Your task to perform on an android device: Open calendar and show me the first week of next month Image 0: 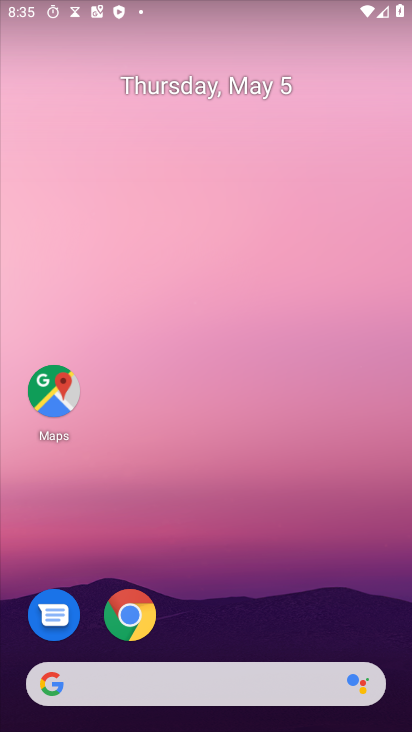
Step 0: drag from (218, 637) to (252, 268)
Your task to perform on an android device: Open calendar and show me the first week of next month Image 1: 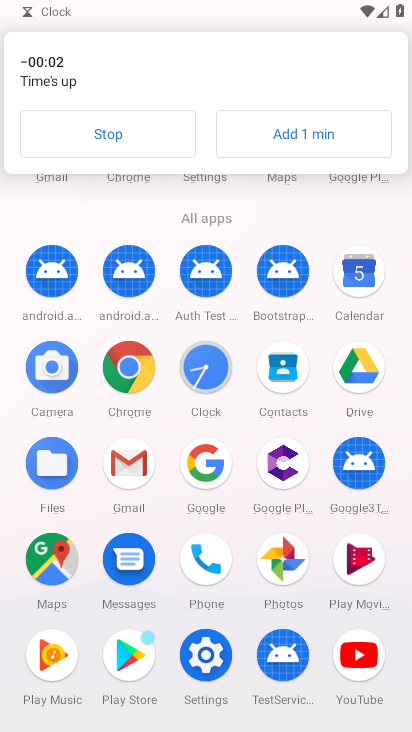
Step 1: click (164, 139)
Your task to perform on an android device: Open calendar and show me the first week of next month Image 2: 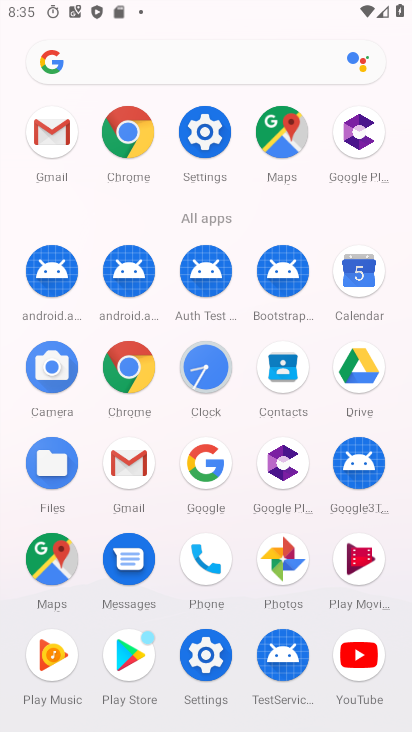
Step 2: click (346, 292)
Your task to perform on an android device: Open calendar and show me the first week of next month Image 3: 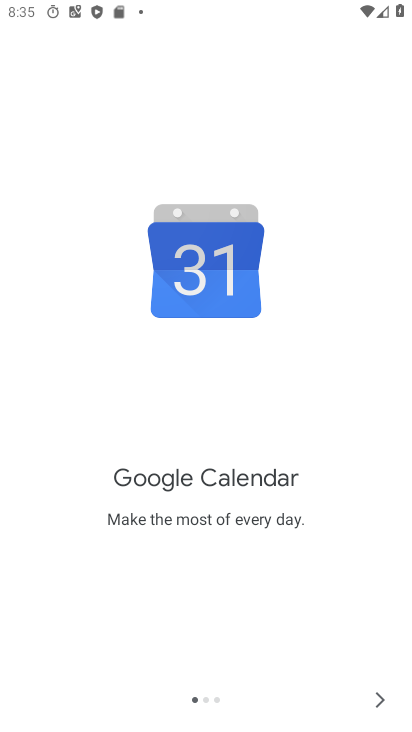
Step 3: click (379, 696)
Your task to perform on an android device: Open calendar and show me the first week of next month Image 4: 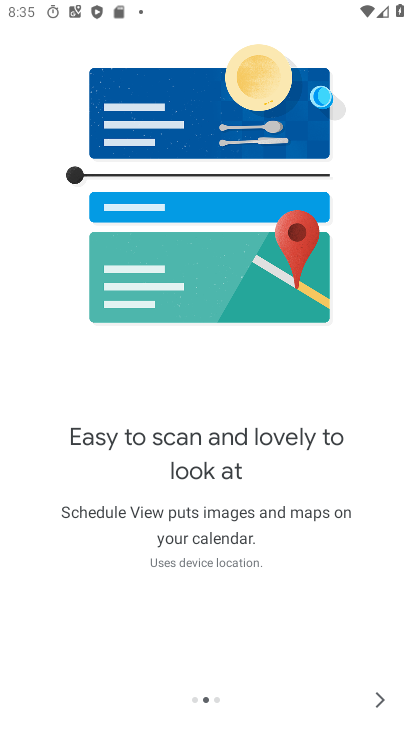
Step 4: click (383, 696)
Your task to perform on an android device: Open calendar and show me the first week of next month Image 5: 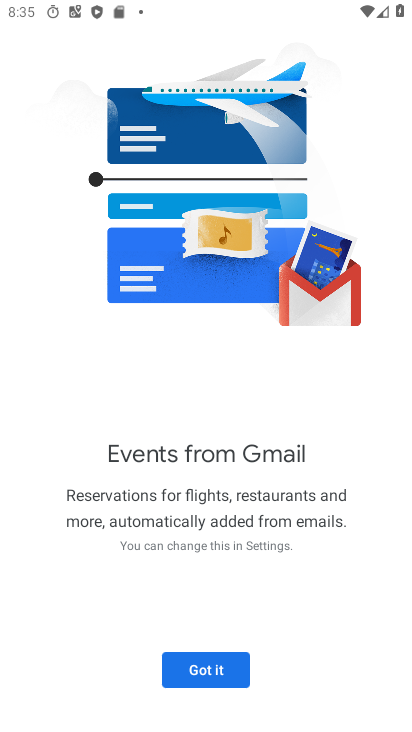
Step 5: click (218, 672)
Your task to perform on an android device: Open calendar and show me the first week of next month Image 6: 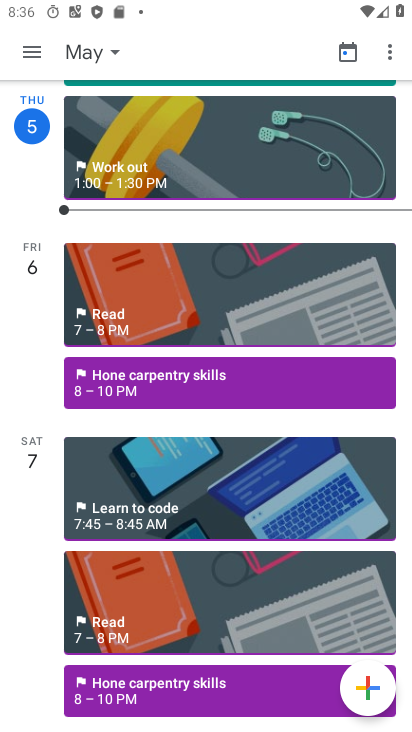
Step 6: click (22, 61)
Your task to perform on an android device: Open calendar and show me the first week of next month Image 7: 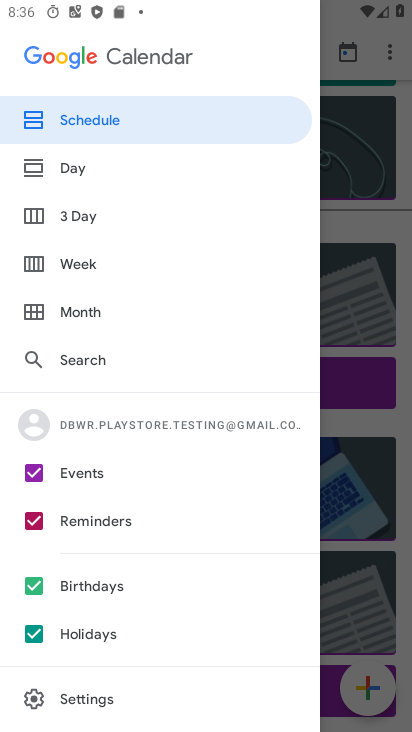
Step 7: click (84, 254)
Your task to perform on an android device: Open calendar and show me the first week of next month Image 8: 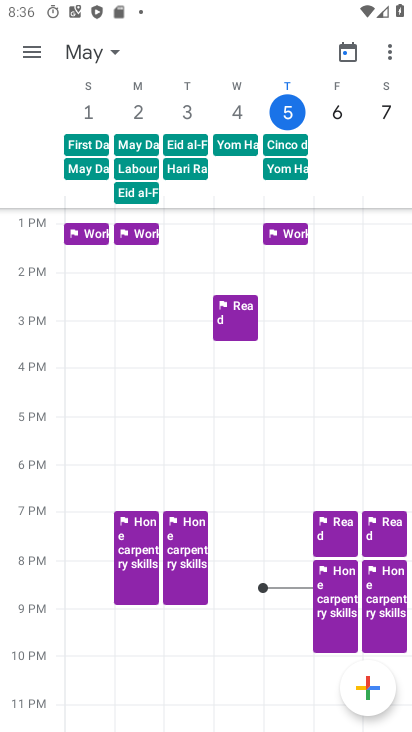
Step 8: click (37, 54)
Your task to perform on an android device: Open calendar and show me the first week of next month Image 9: 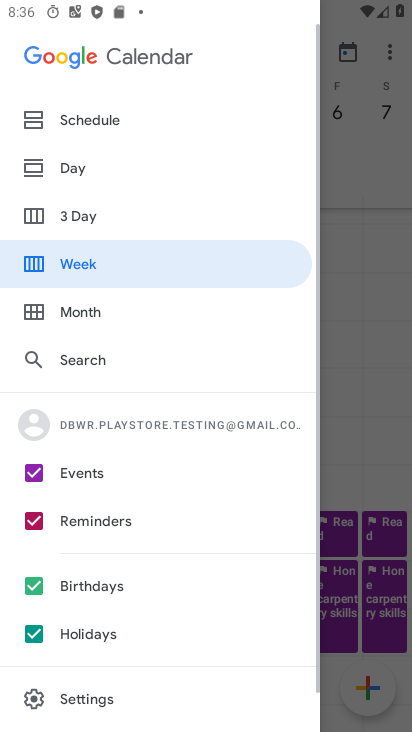
Step 9: click (133, 274)
Your task to perform on an android device: Open calendar and show me the first week of next month Image 10: 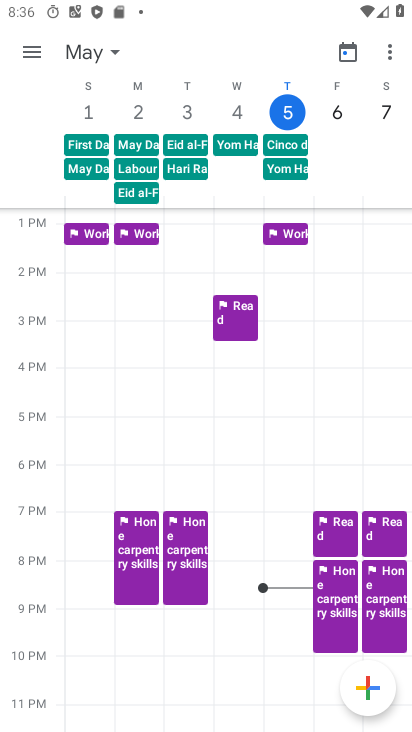
Step 10: click (118, 51)
Your task to perform on an android device: Open calendar and show me the first week of next month Image 11: 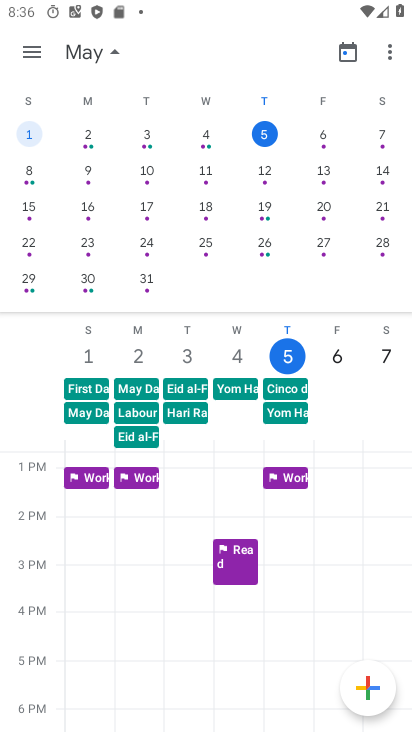
Step 11: drag from (317, 205) to (4, 154)
Your task to perform on an android device: Open calendar and show me the first week of next month Image 12: 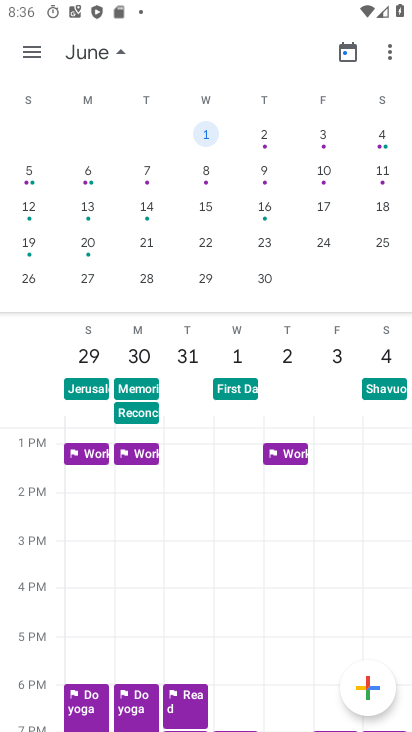
Step 12: click (36, 50)
Your task to perform on an android device: Open calendar and show me the first week of next month Image 13: 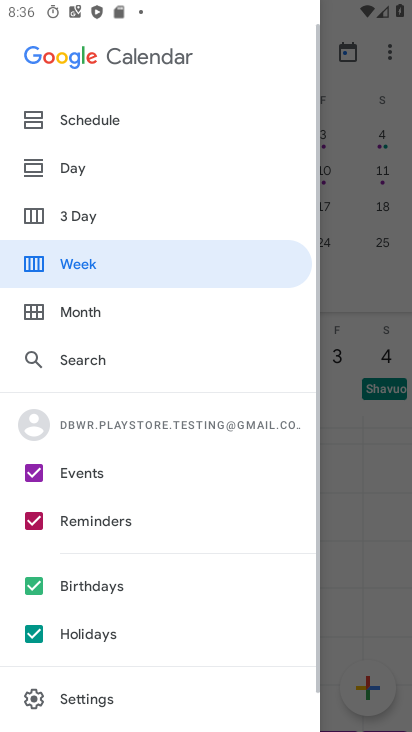
Step 13: click (95, 265)
Your task to perform on an android device: Open calendar and show me the first week of next month Image 14: 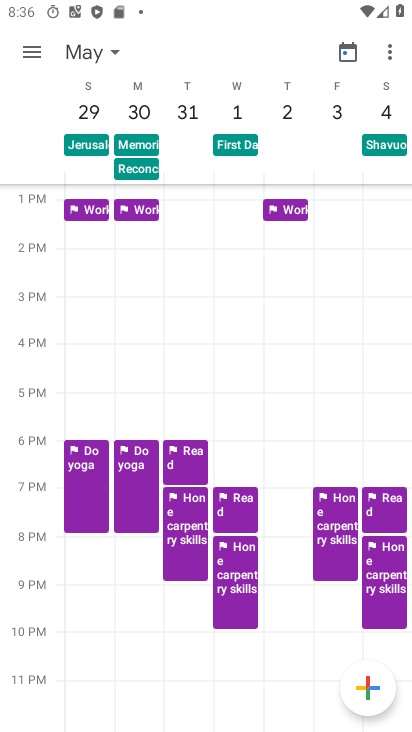
Step 14: task complete